Your task to perform on an android device: Go to battery settings Image 0: 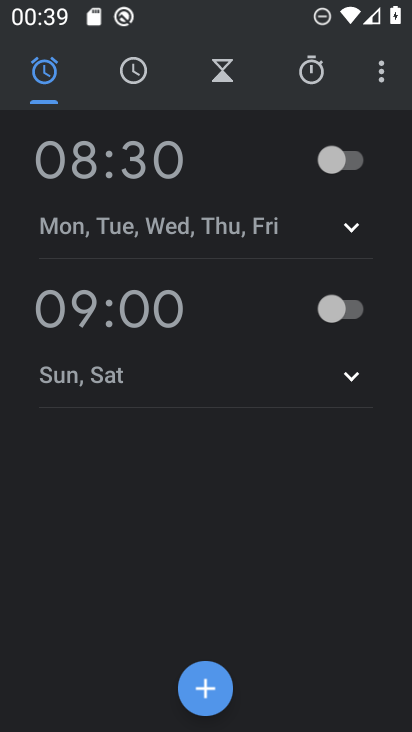
Step 0: press home button
Your task to perform on an android device: Go to battery settings Image 1: 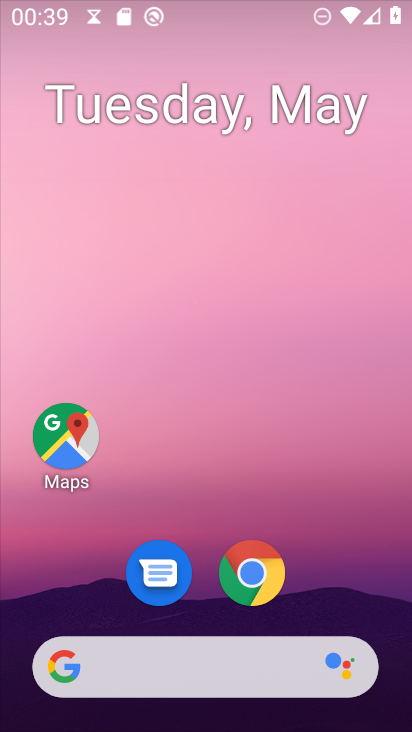
Step 1: drag from (369, 535) to (208, 15)
Your task to perform on an android device: Go to battery settings Image 2: 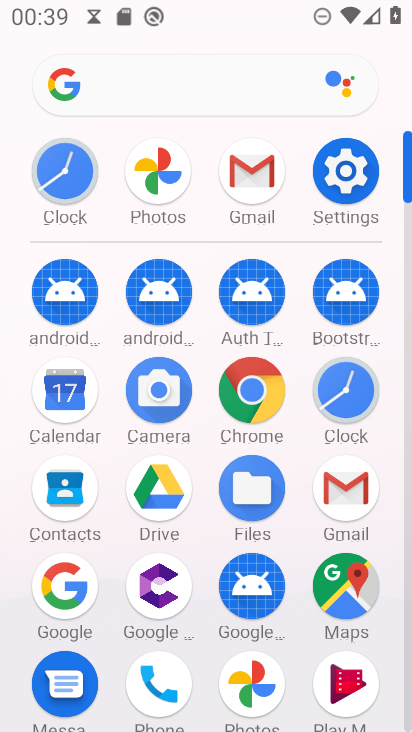
Step 2: click (352, 165)
Your task to perform on an android device: Go to battery settings Image 3: 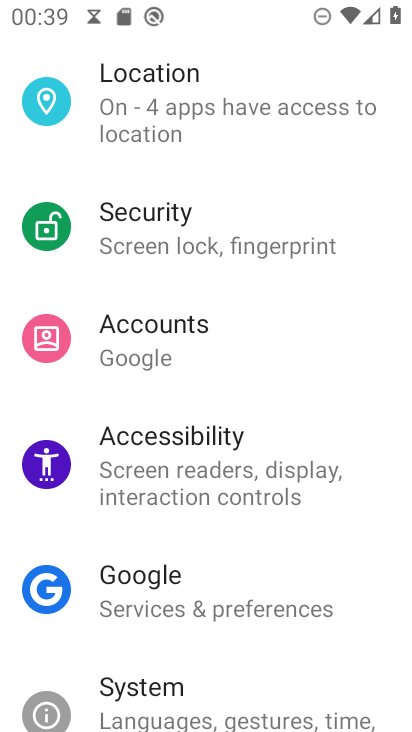
Step 3: drag from (226, 599) to (235, 723)
Your task to perform on an android device: Go to battery settings Image 4: 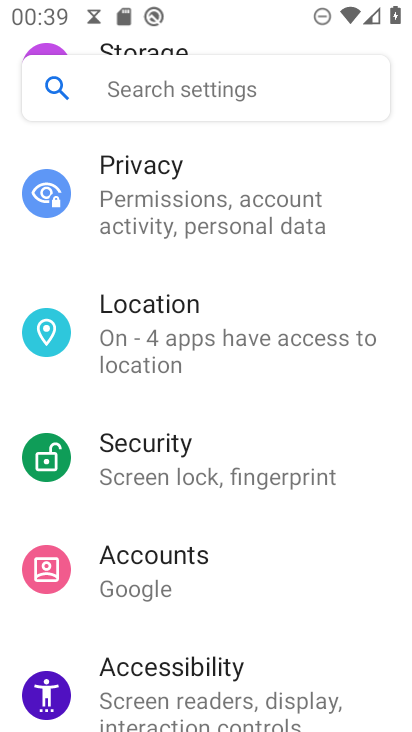
Step 4: drag from (224, 352) to (218, 623)
Your task to perform on an android device: Go to battery settings Image 5: 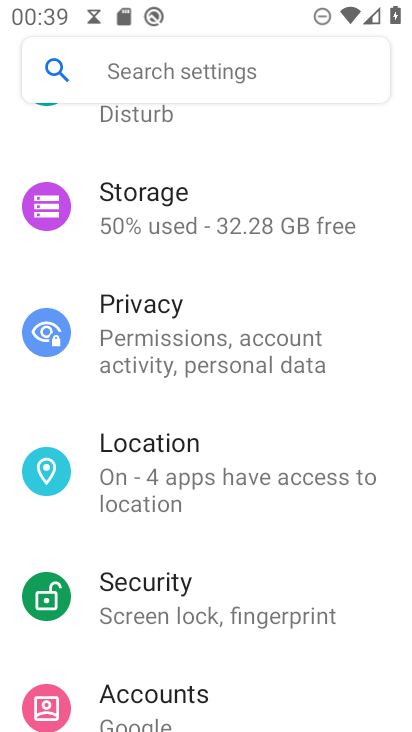
Step 5: drag from (207, 240) to (222, 617)
Your task to perform on an android device: Go to battery settings Image 6: 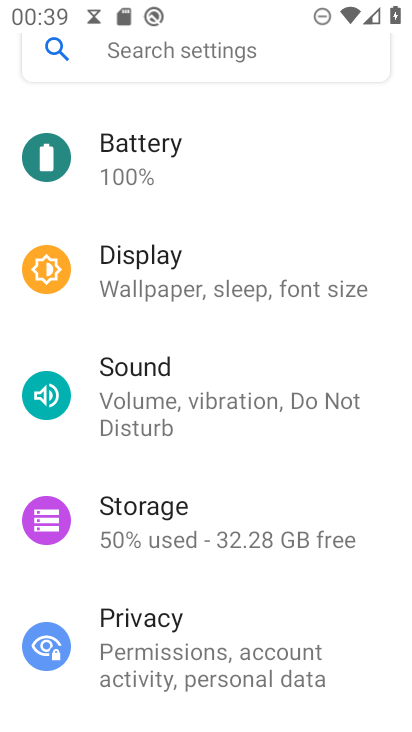
Step 6: click (209, 546)
Your task to perform on an android device: Go to battery settings Image 7: 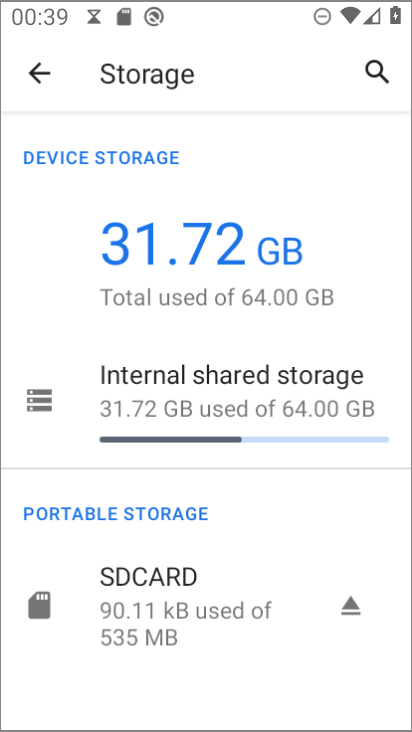
Step 7: click (147, 160)
Your task to perform on an android device: Go to battery settings Image 8: 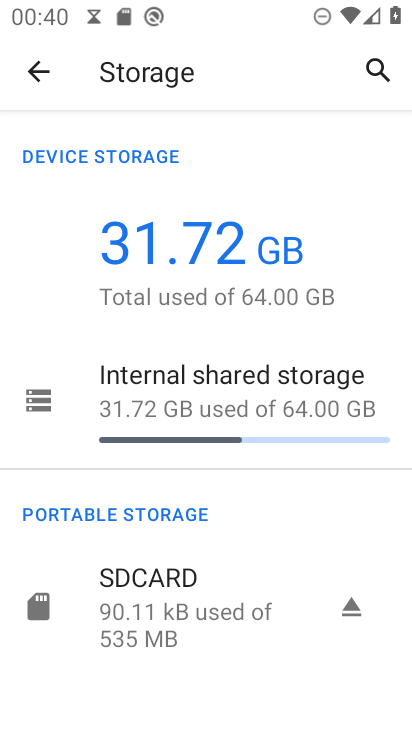
Step 8: task complete